Your task to perform on an android device: turn off sleep mode Image 0: 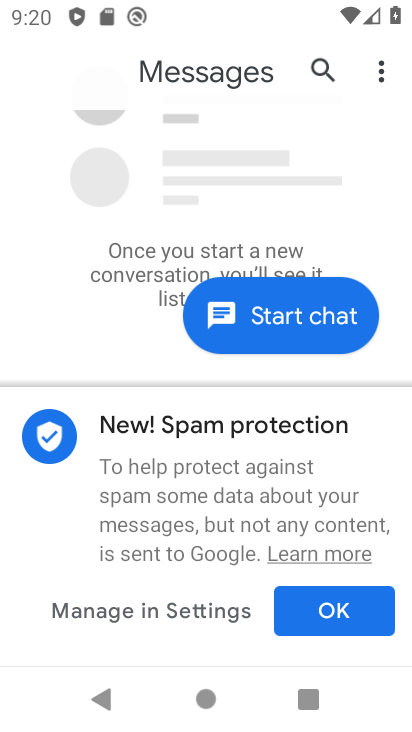
Step 0: press home button
Your task to perform on an android device: turn off sleep mode Image 1: 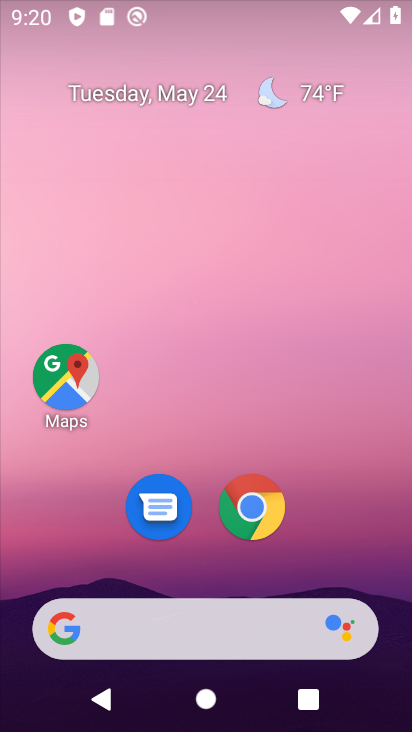
Step 1: drag from (182, 725) to (179, 189)
Your task to perform on an android device: turn off sleep mode Image 2: 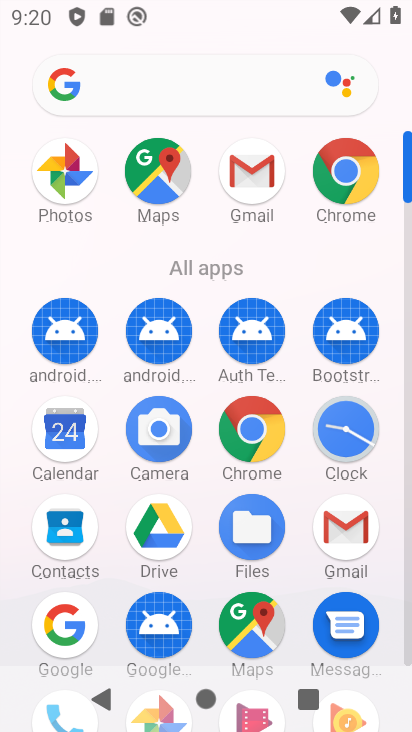
Step 2: drag from (218, 633) to (224, 247)
Your task to perform on an android device: turn off sleep mode Image 3: 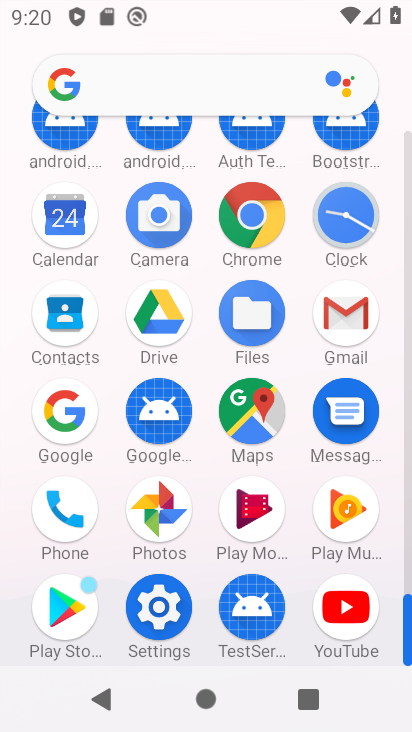
Step 3: click (154, 617)
Your task to perform on an android device: turn off sleep mode Image 4: 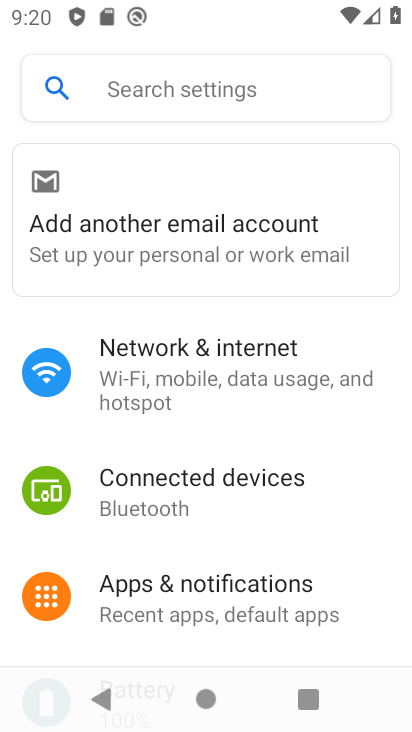
Step 4: task complete